Your task to perform on an android device: empty trash in the gmail app Image 0: 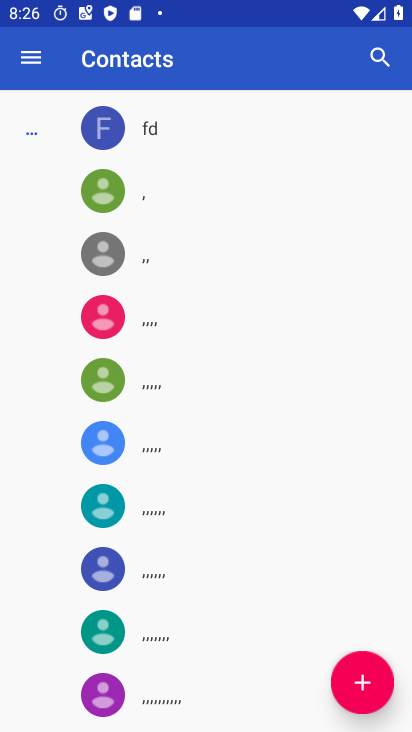
Step 0: press home button
Your task to perform on an android device: empty trash in the gmail app Image 1: 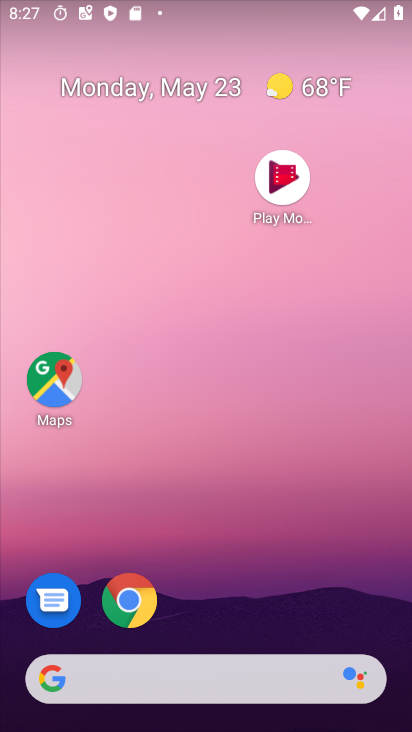
Step 1: drag from (294, 681) to (219, 72)
Your task to perform on an android device: empty trash in the gmail app Image 2: 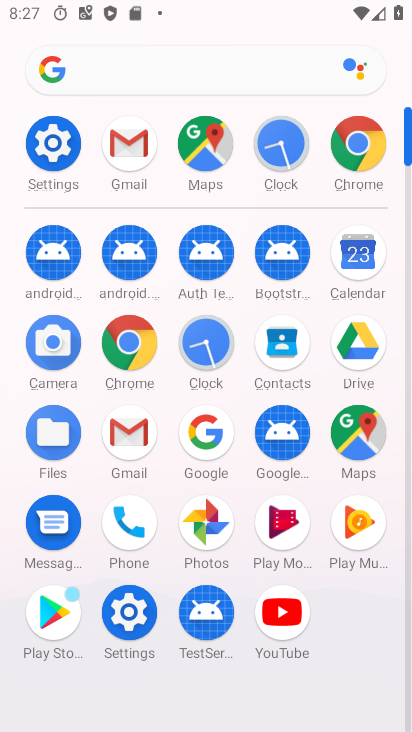
Step 2: click (134, 428)
Your task to perform on an android device: empty trash in the gmail app Image 3: 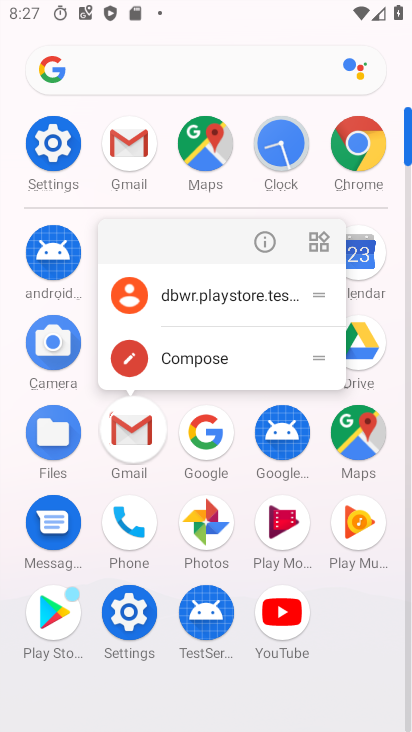
Step 3: click (141, 426)
Your task to perform on an android device: empty trash in the gmail app Image 4: 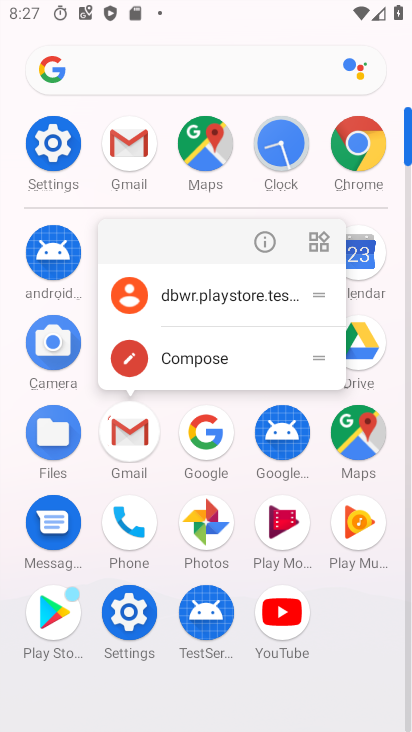
Step 4: click (142, 427)
Your task to perform on an android device: empty trash in the gmail app Image 5: 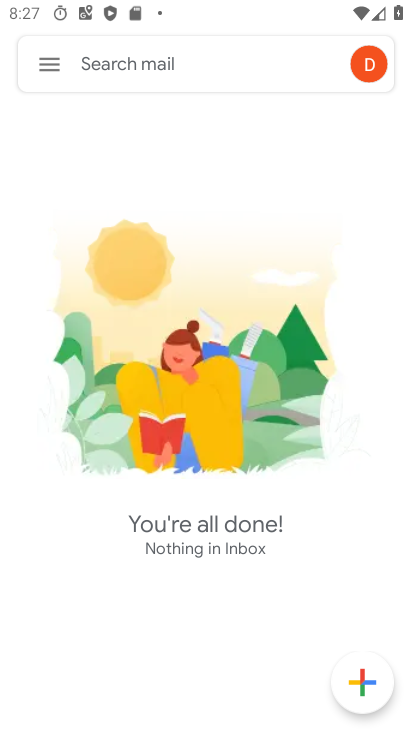
Step 5: click (53, 63)
Your task to perform on an android device: empty trash in the gmail app Image 6: 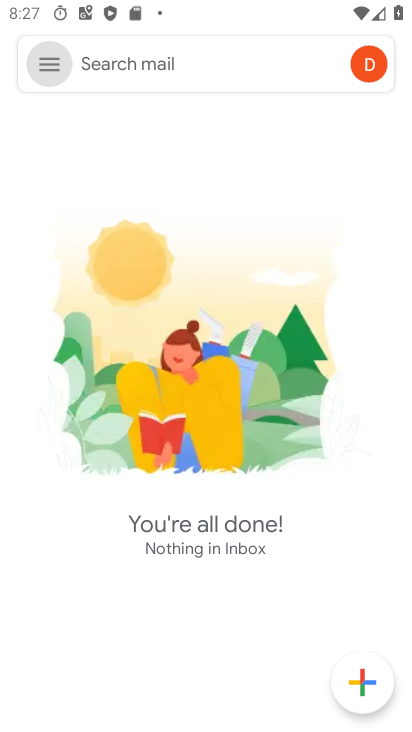
Step 6: click (53, 64)
Your task to perform on an android device: empty trash in the gmail app Image 7: 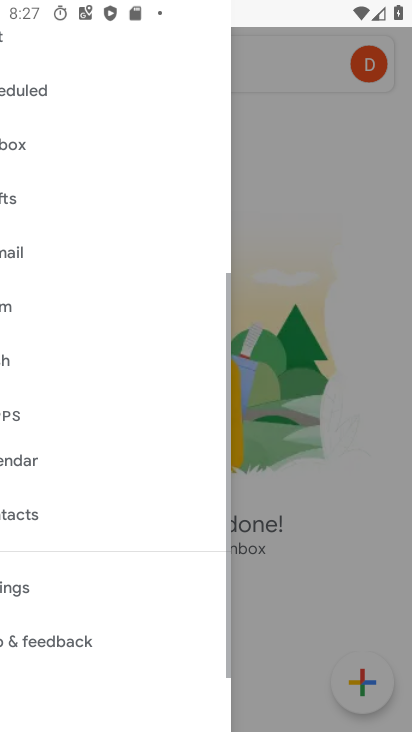
Step 7: click (53, 64)
Your task to perform on an android device: empty trash in the gmail app Image 8: 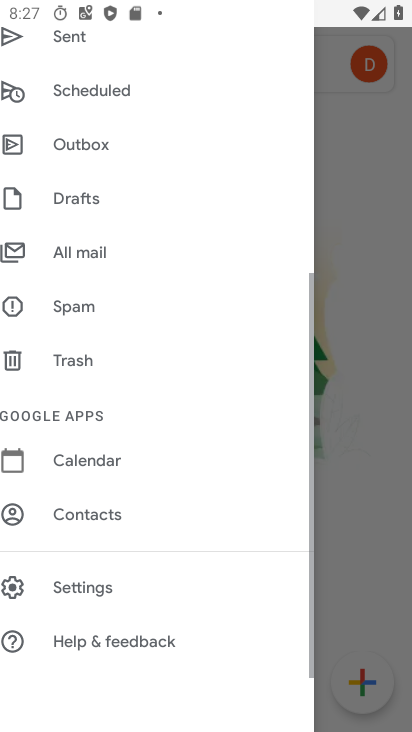
Step 8: click (53, 64)
Your task to perform on an android device: empty trash in the gmail app Image 9: 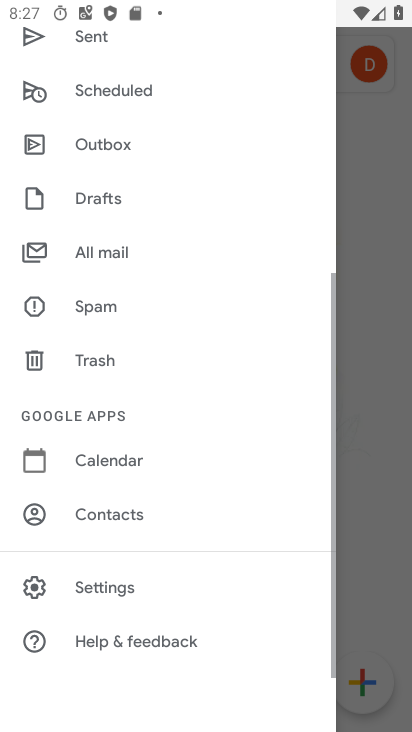
Step 9: click (53, 64)
Your task to perform on an android device: empty trash in the gmail app Image 10: 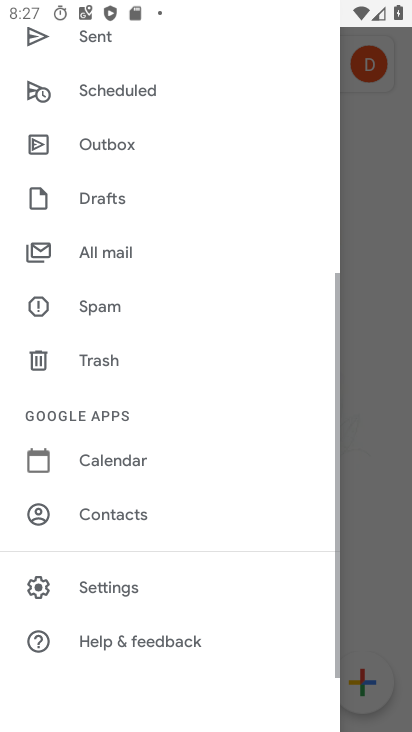
Step 10: click (53, 67)
Your task to perform on an android device: empty trash in the gmail app Image 11: 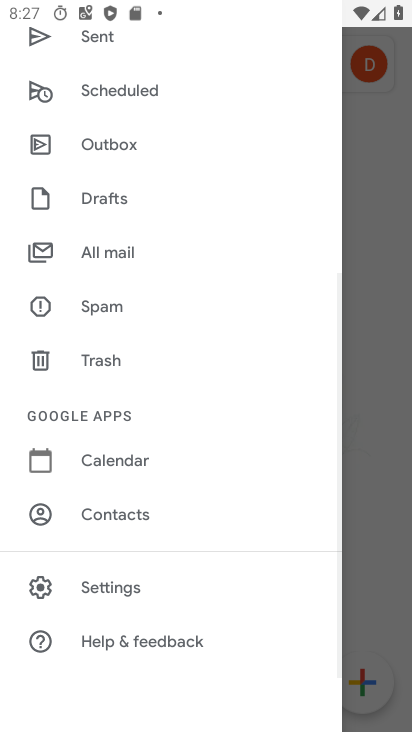
Step 11: click (55, 79)
Your task to perform on an android device: empty trash in the gmail app Image 12: 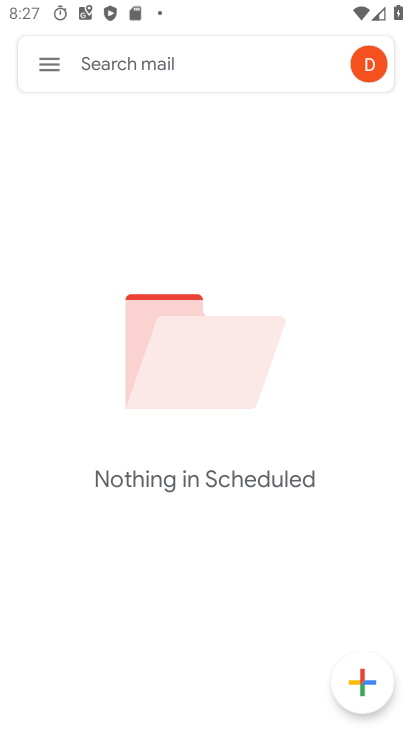
Step 12: click (48, 64)
Your task to perform on an android device: empty trash in the gmail app Image 13: 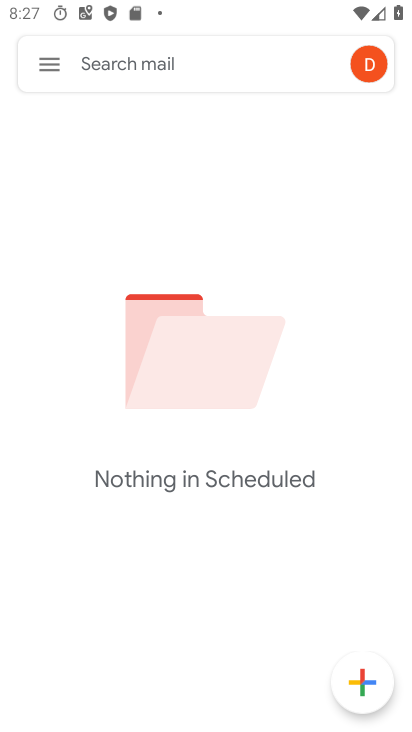
Step 13: click (65, 75)
Your task to perform on an android device: empty trash in the gmail app Image 14: 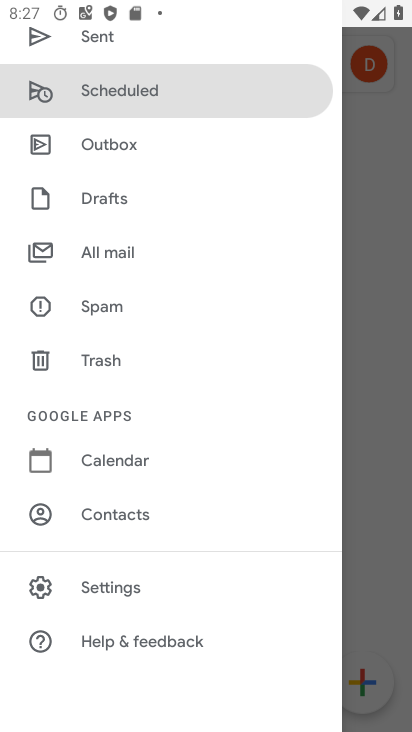
Step 14: click (102, 581)
Your task to perform on an android device: empty trash in the gmail app Image 15: 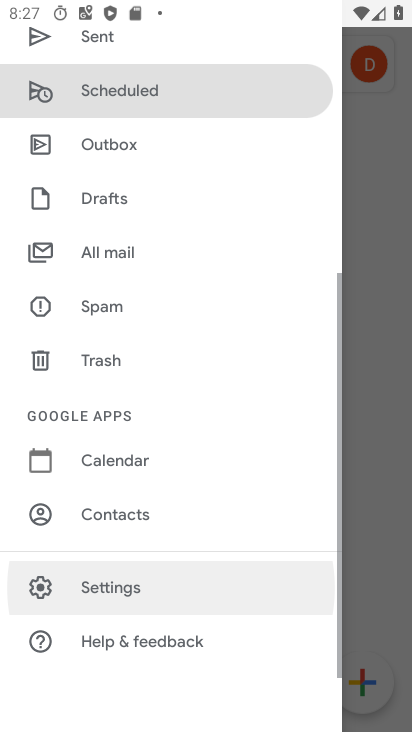
Step 15: click (102, 582)
Your task to perform on an android device: empty trash in the gmail app Image 16: 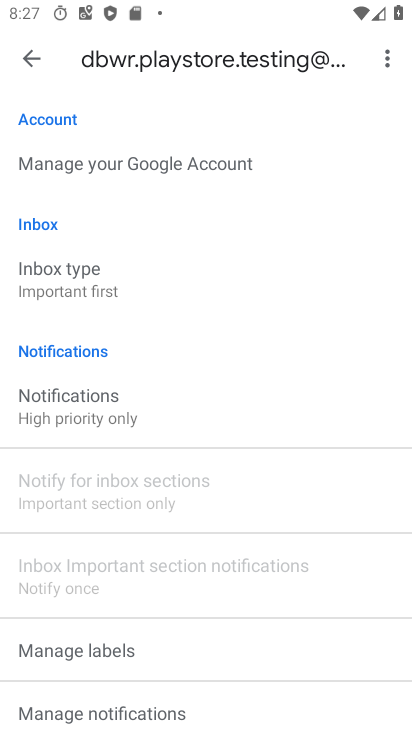
Step 16: click (27, 46)
Your task to perform on an android device: empty trash in the gmail app Image 17: 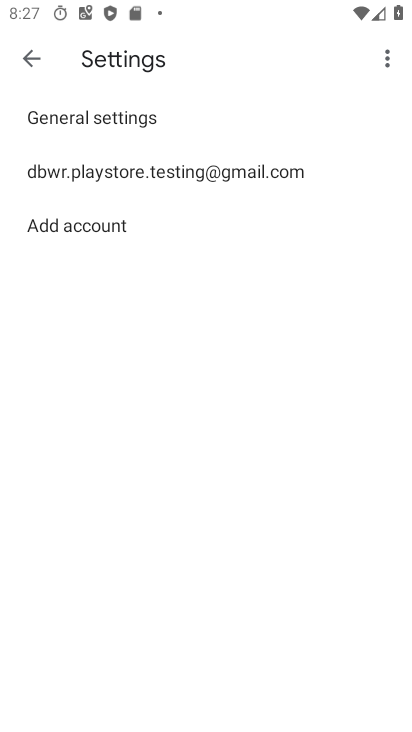
Step 17: click (24, 60)
Your task to perform on an android device: empty trash in the gmail app Image 18: 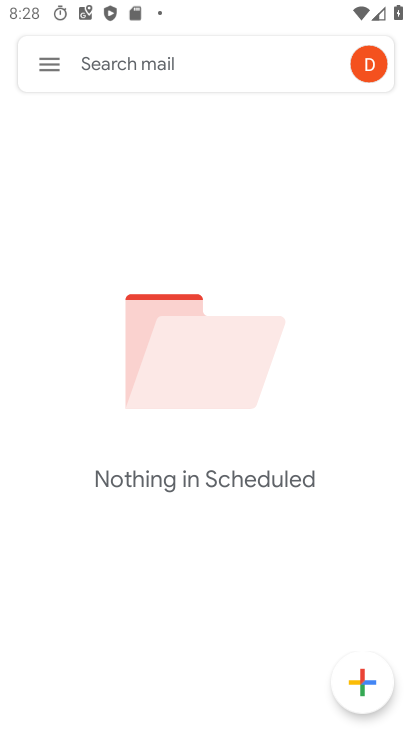
Step 18: click (51, 64)
Your task to perform on an android device: empty trash in the gmail app Image 19: 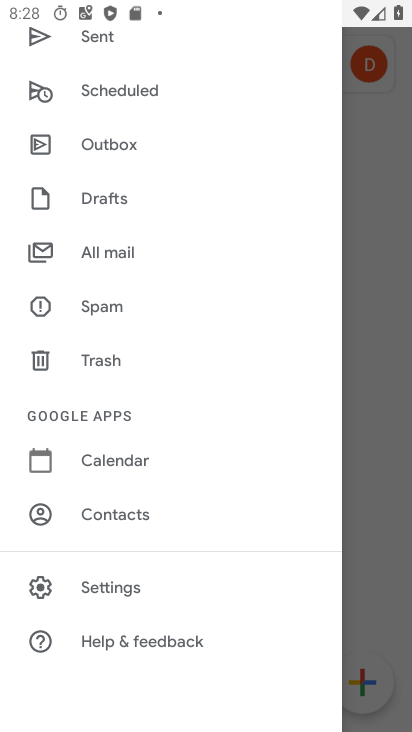
Step 19: click (99, 348)
Your task to perform on an android device: empty trash in the gmail app Image 20: 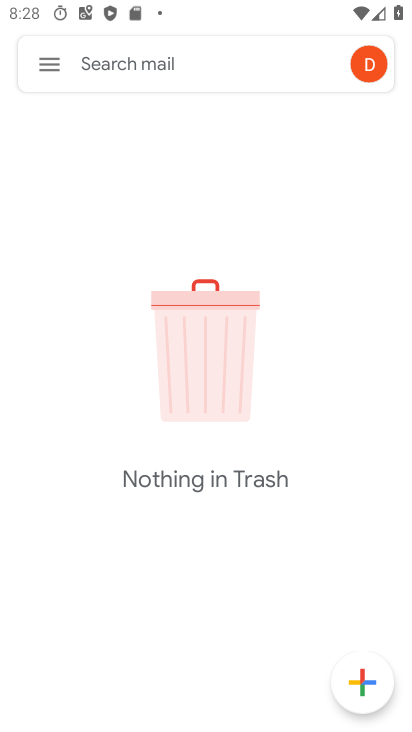
Step 20: task complete